Your task to perform on an android device: see tabs open on other devices in the chrome app Image 0: 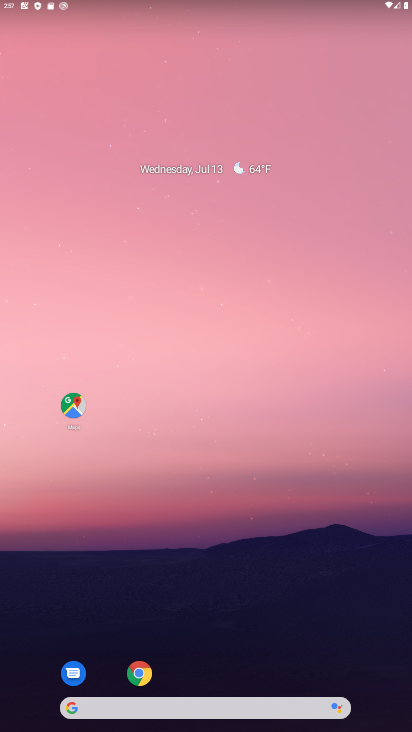
Step 0: drag from (323, 640) to (291, 31)
Your task to perform on an android device: see tabs open on other devices in the chrome app Image 1: 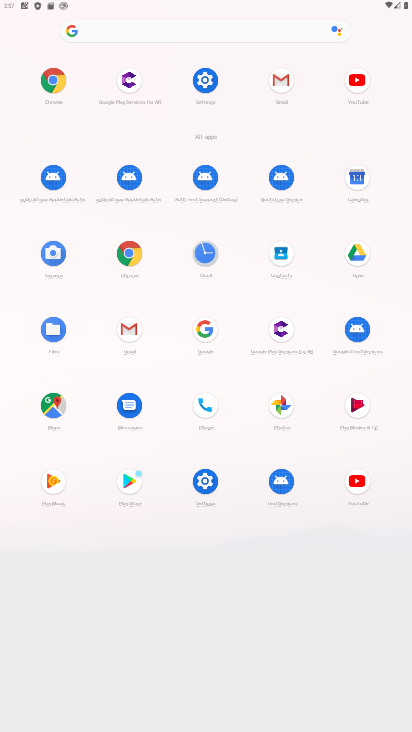
Step 1: click (129, 250)
Your task to perform on an android device: see tabs open on other devices in the chrome app Image 2: 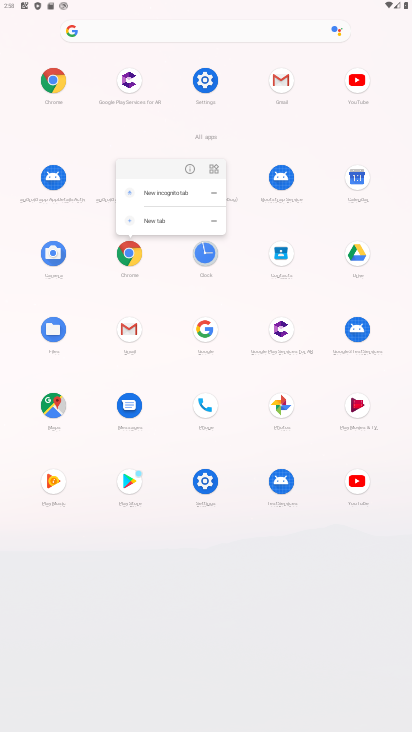
Step 2: click (129, 250)
Your task to perform on an android device: see tabs open on other devices in the chrome app Image 3: 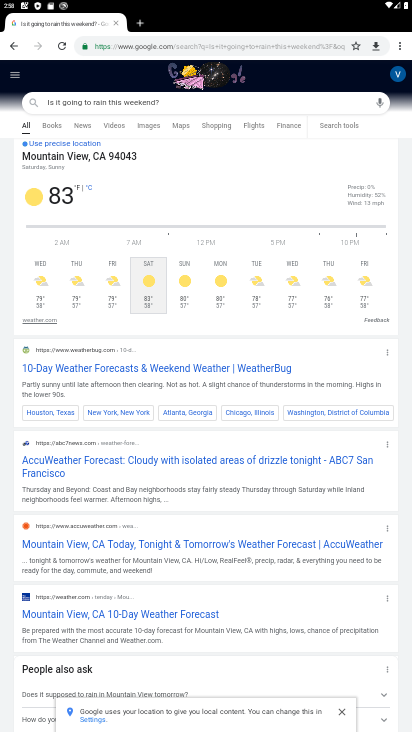
Step 3: task complete